Your task to perform on an android device: change timer sound Image 0: 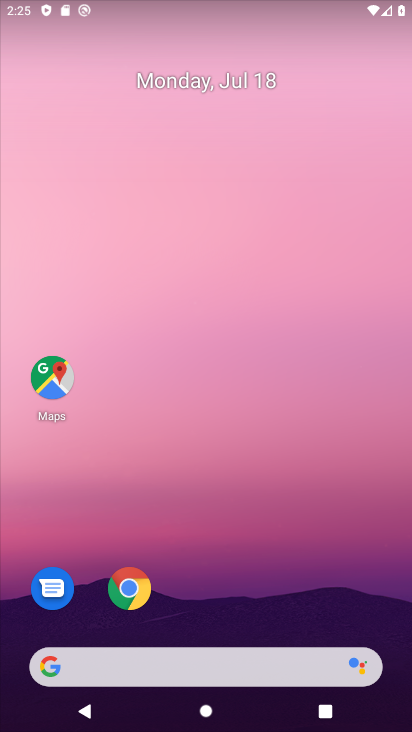
Step 0: drag from (235, 601) to (255, 60)
Your task to perform on an android device: change timer sound Image 1: 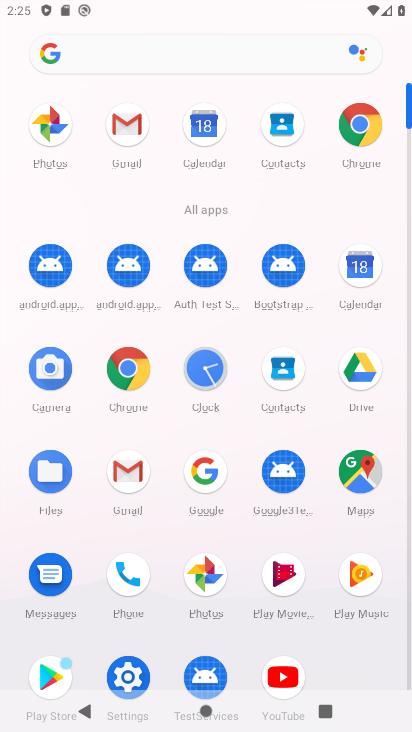
Step 1: click (205, 358)
Your task to perform on an android device: change timer sound Image 2: 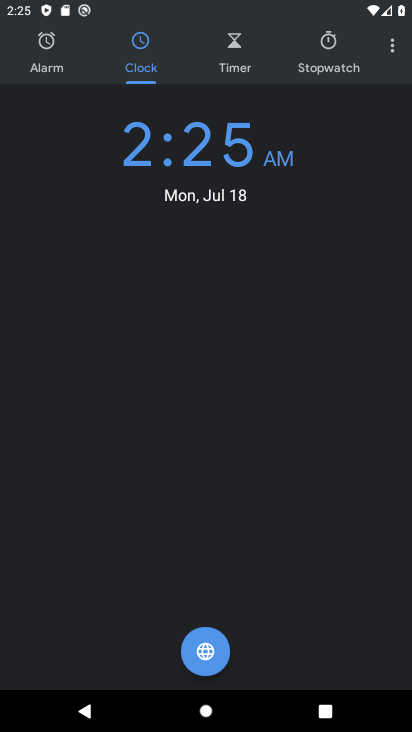
Step 2: click (390, 45)
Your task to perform on an android device: change timer sound Image 3: 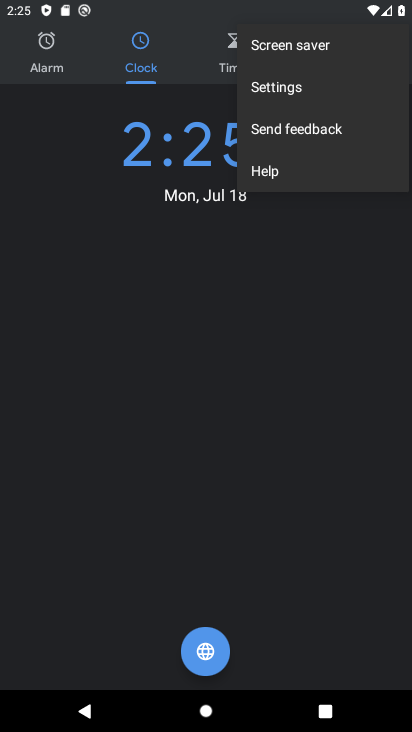
Step 3: click (282, 92)
Your task to perform on an android device: change timer sound Image 4: 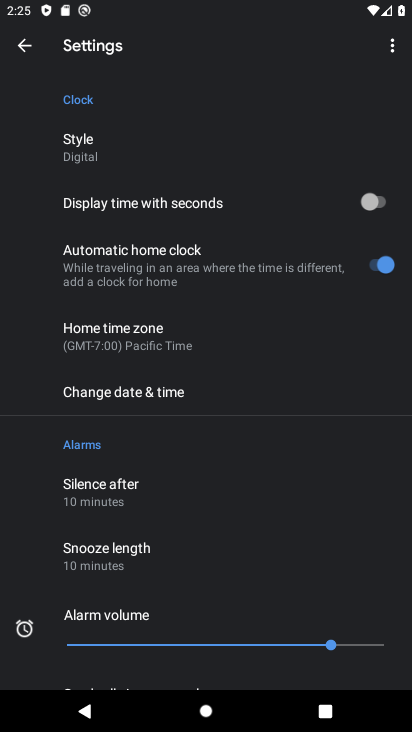
Step 4: drag from (158, 603) to (195, 131)
Your task to perform on an android device: change timer sound Image 5: 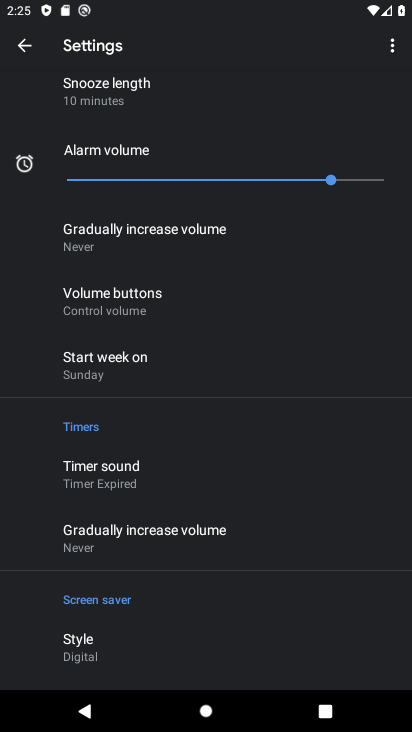
Step 5: click (109, 472)
Your task to perform on an android device: change timer sound Image 6: 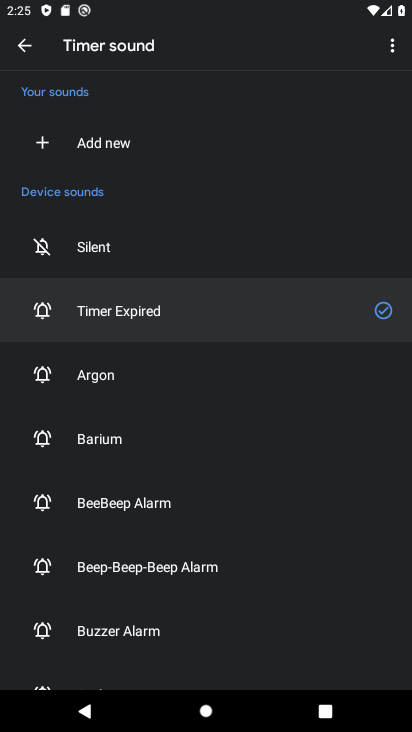
Step 6: click (115, 390)
Your task to perform on an android device: change timer sound Image 7: 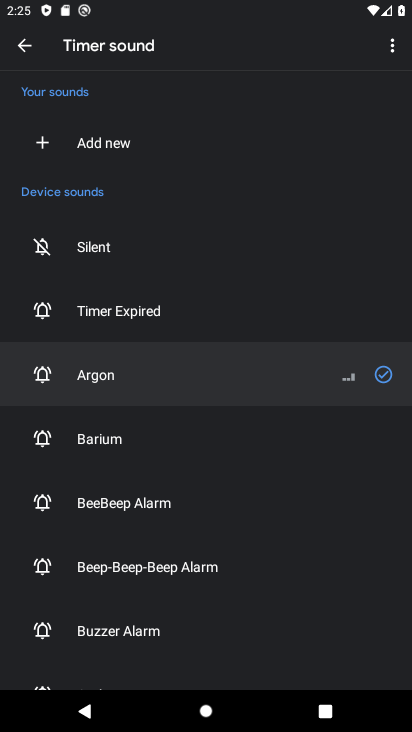
Step 7: task complete